Your task to perform on an android device: turn pop-ups off in chrome Image 0: 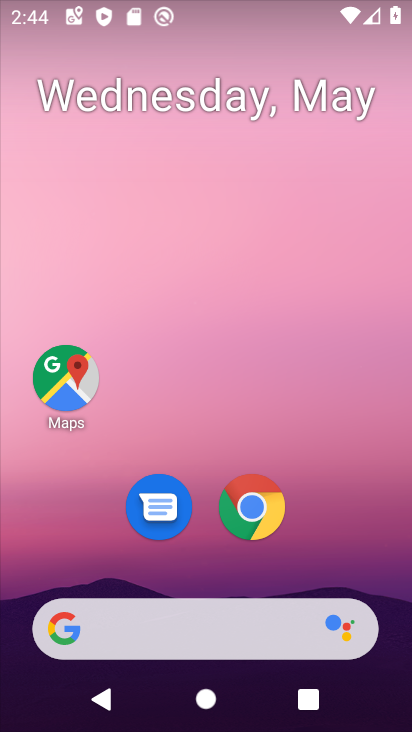
Step 0: drag from (206, 562) to (321, 30)
Your task to perform on an android device: turn pop-ups off in chrome Image 1: 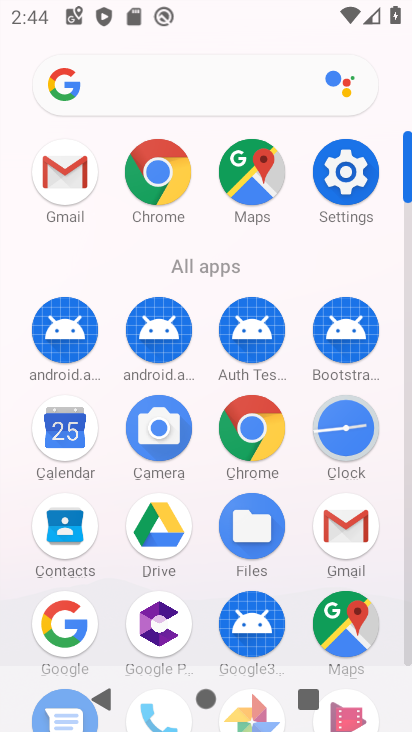
Step 1: click (243, 418)
Your task to perform on an android device: turn pop-ups off in chrome Image 2: 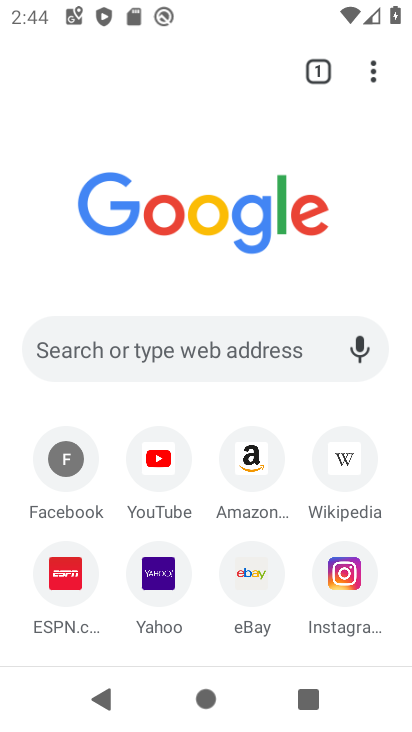
Step 2: click (378, 78)
Your task to perform on an android device: turn pop-ups off in chrome Image 3: 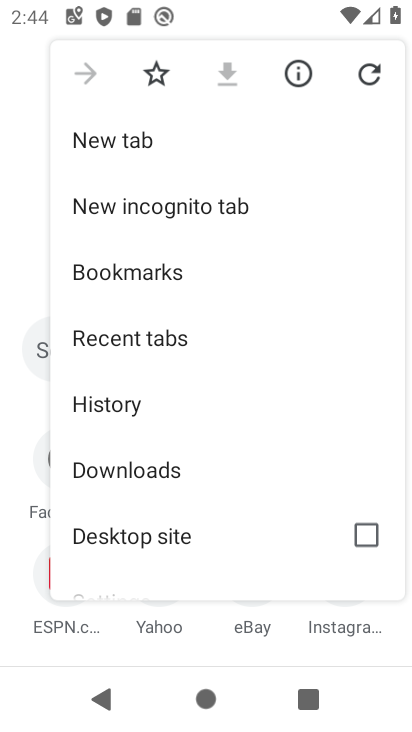
Step 3: drag from (157, 567) to (215, 151)
Your task to perform on an android device: turn pop-ups off in chrome Image 4: 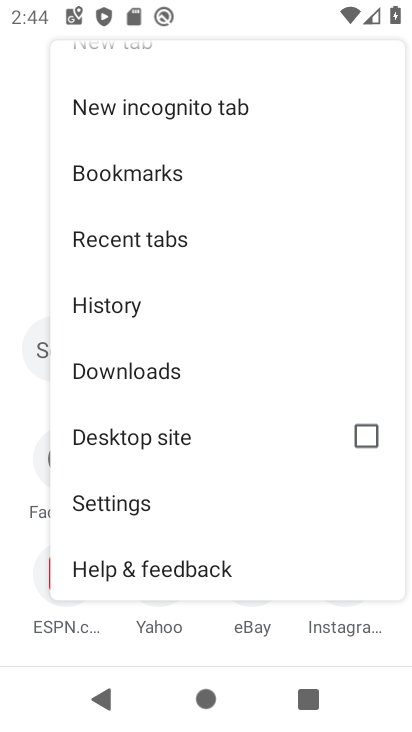
Step 4: click (121, 498)
Your task to perform on an android device: turn pop-ups off in chrome Image 5: 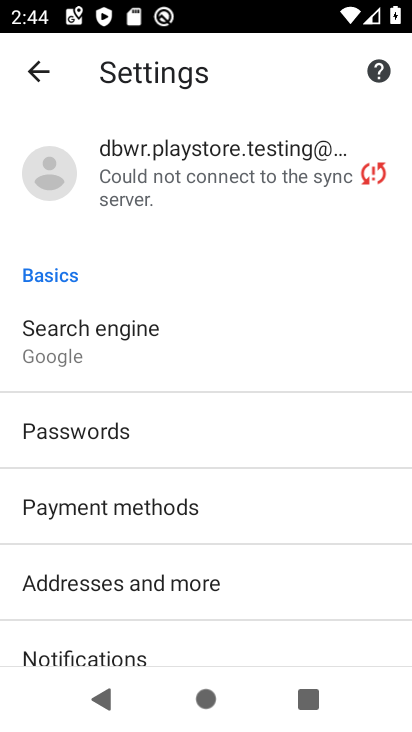
Step 5: drag from (155, 452) to (170, 161)
Your task to perform on an android device: turn pop-ups off in chrome Image 6: 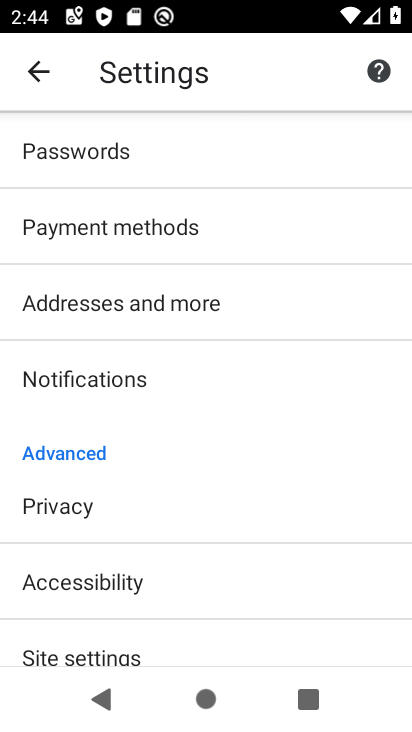
Step 6: drag from (128, 559) to (195, 159)
Your task to perform on an android device: turn pop-ups off in chrome Image 7: 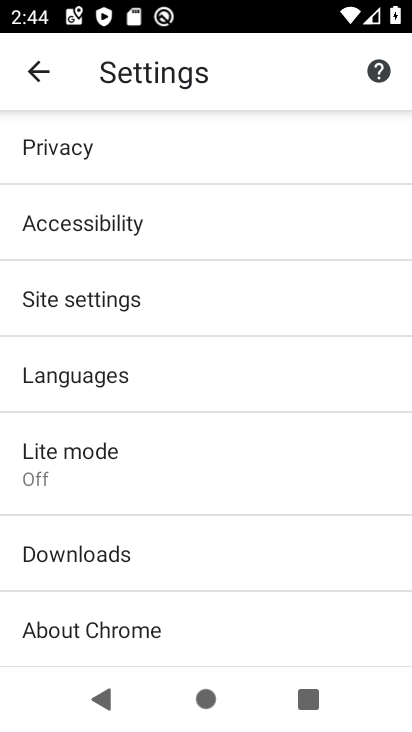
Step 7: click (106, 302)
Your task to perform on an android device: turn pop-ups off in chrome Image 8: 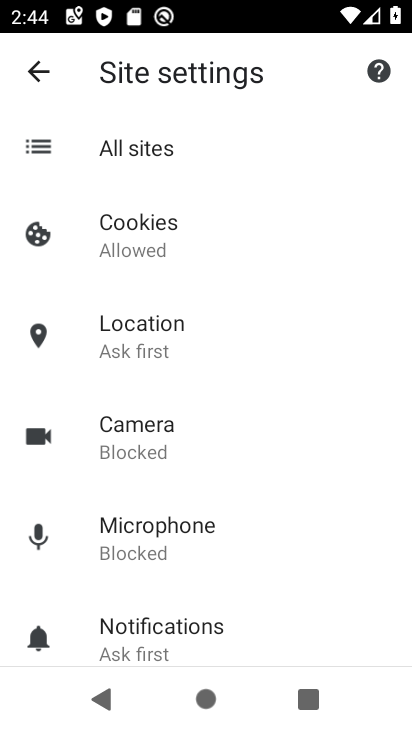
Step 8: drag from (173, 512) to (227, 119)
Your task to perform on an android device: turn pop-ups off in chrome Image 9: 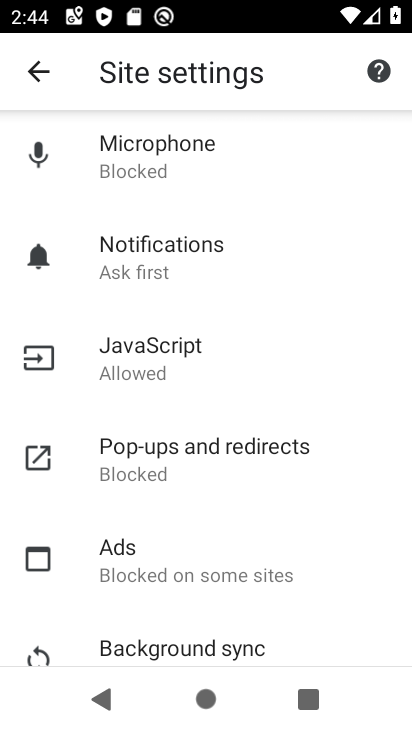
Step 9: click (183, 466)
Your task to perform on an android device: turn pop-ups off in chrome Image 10: 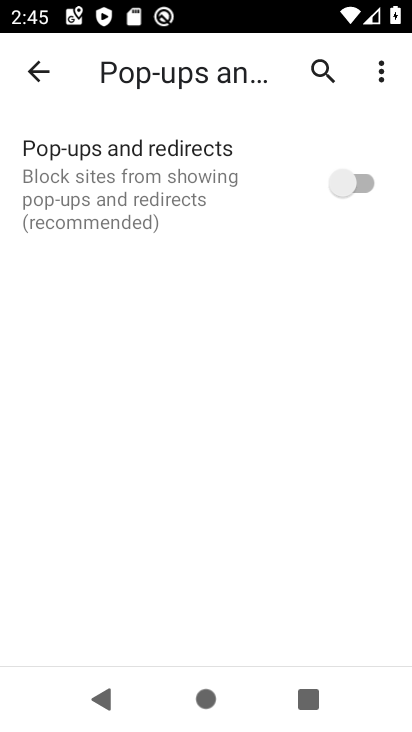
Step 10: task complete